Your task to perform on an android device: Search for "dell alienware" on bestbuy, select the first entry, add it to the cart, then select checkout. Image 0: 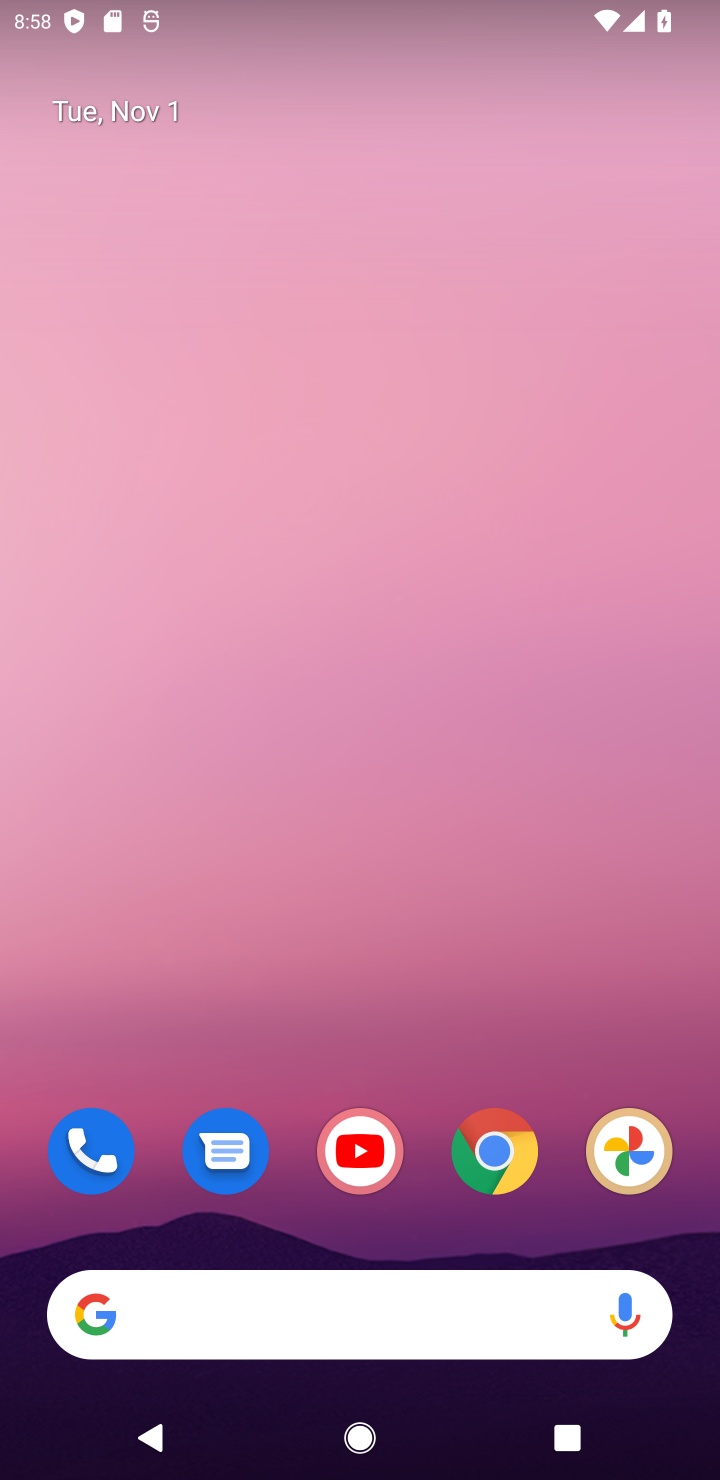
Step 0: click (490, 1137)
Your task to perform on an android device: Search for "dell alienware" on bestbuy, select the first entry, add it to the cart, then select checkout. Image 1: 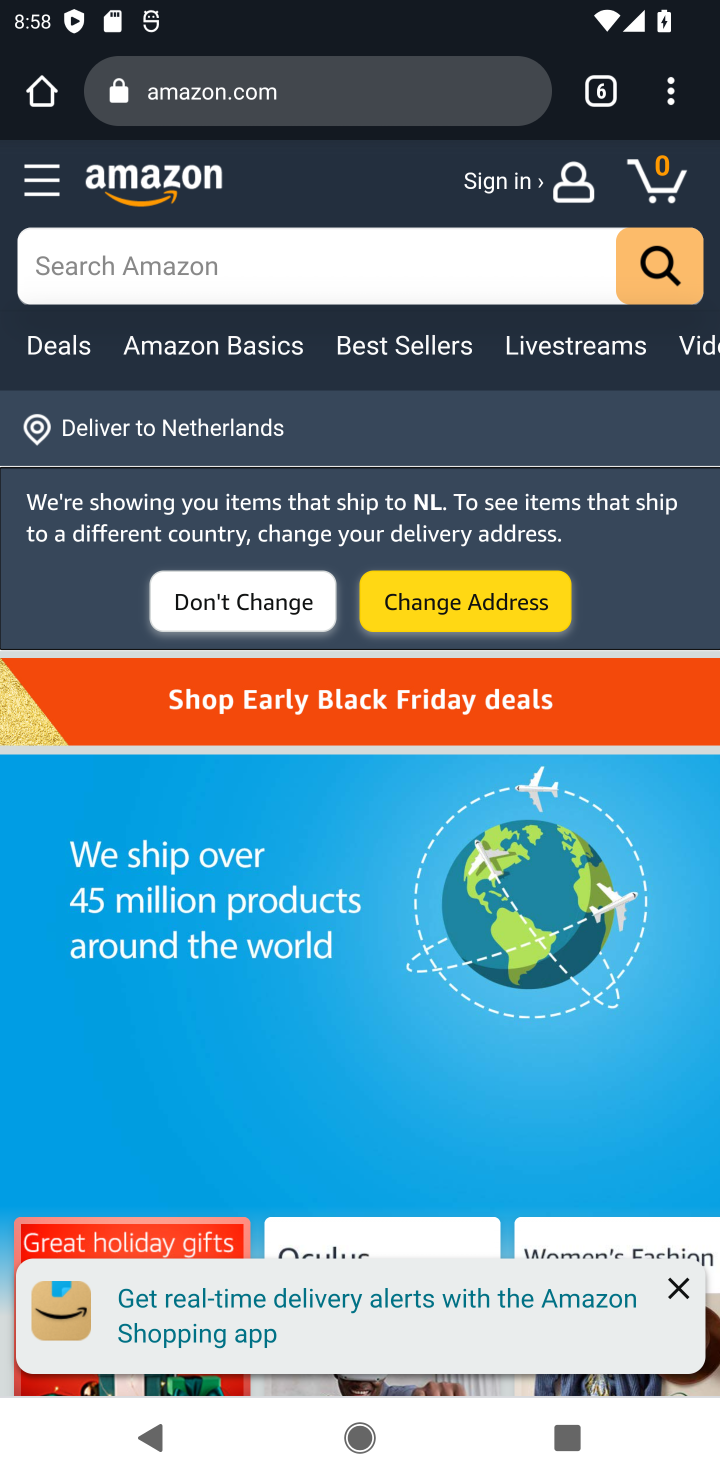
Step 1: click (594, 86)
Your task to perform on an android device: Search for "dell alienware" on bestbuy, select the first entry, add it to the cart, then select checkout. Image 2: 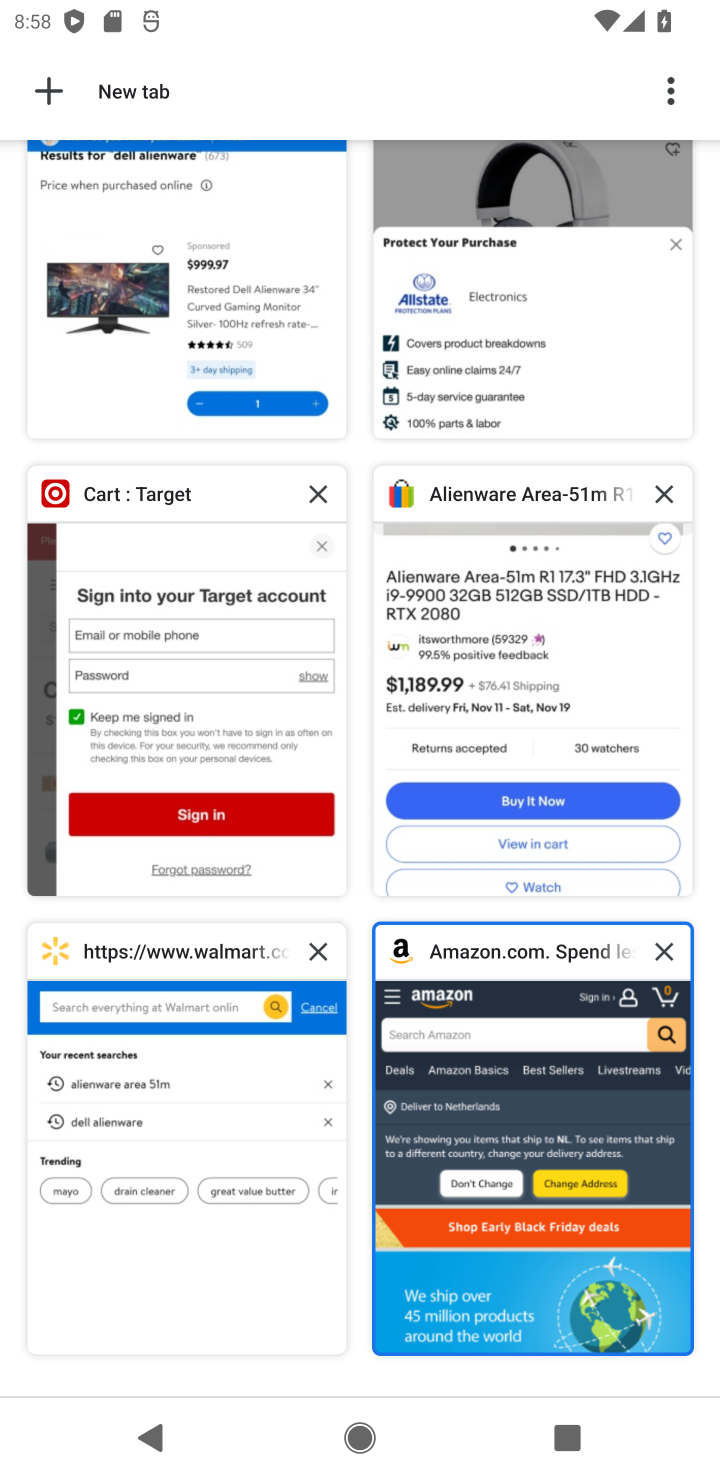
Step 2: drag from (130, 383) to (270, 935)
Your task to perform on an android device: Search for "dell alienware" on bestbuy, select the first entry, add it to the cart, then select checkout. Image 3: 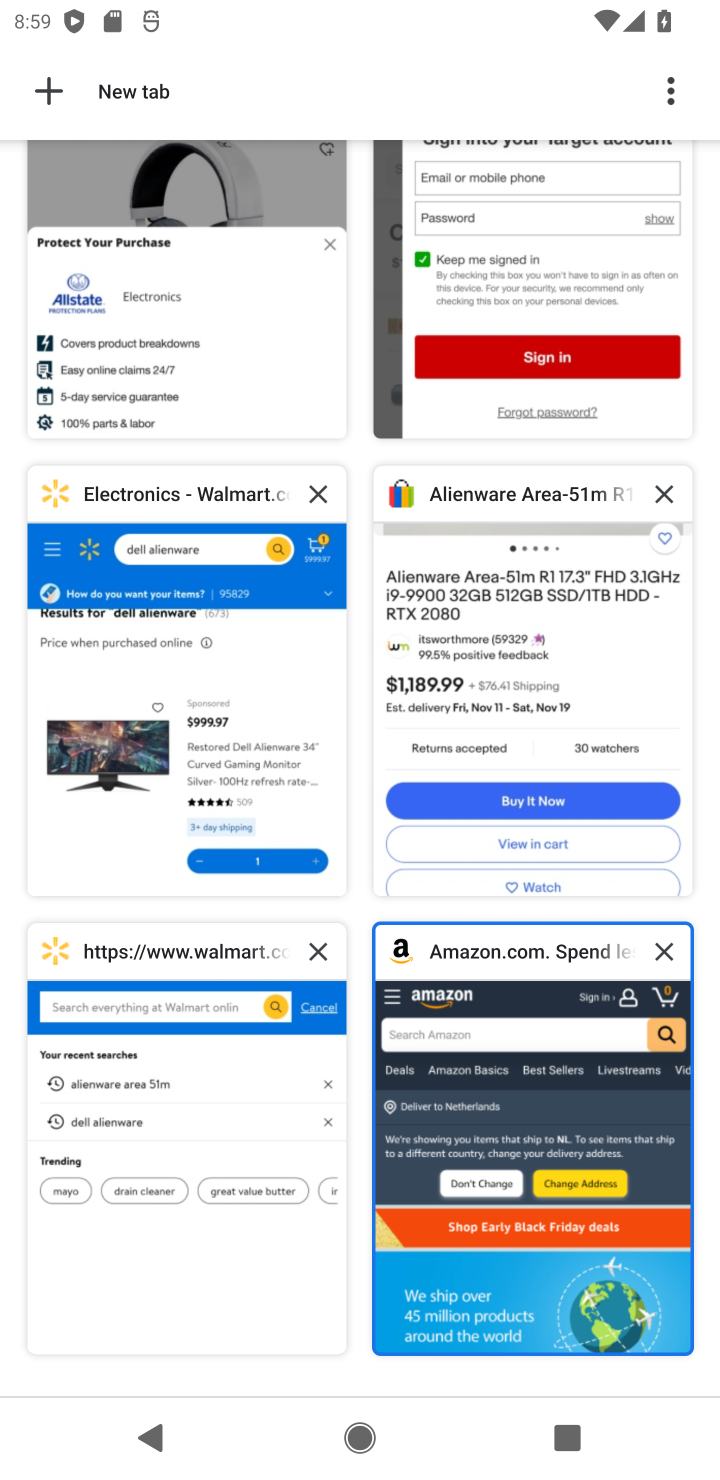
Step 3: click (322, 945)
Your task to perform on an android device: Search for "dell alienware" on bestbuy, select the first entry, add it to the cart, then select checkout. Image 4: 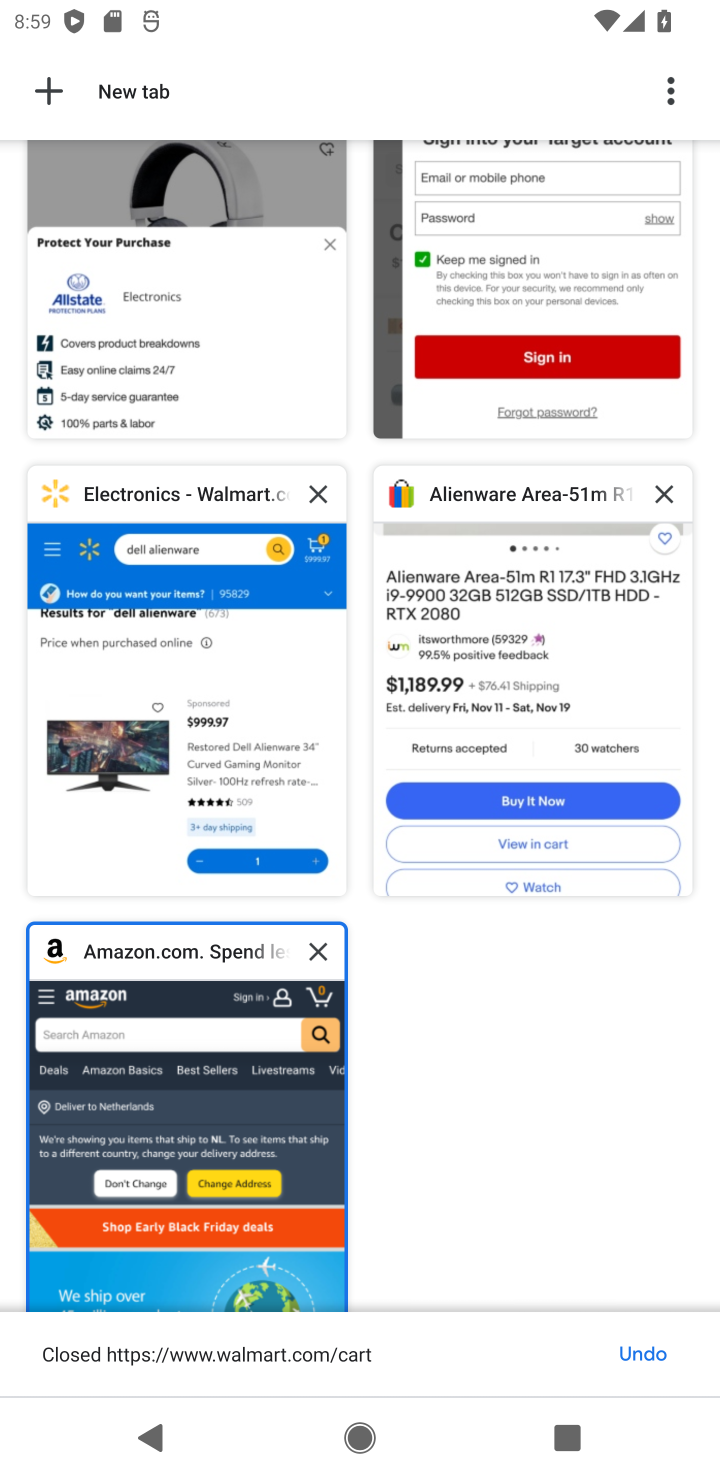
Step 4: drag from (448, 1179) to (477, 1439)
Your task to perform on an android device: Search for "dell alienware" on bestbuy, select the first entry, add it to the cart, then select checkout. Image 5: 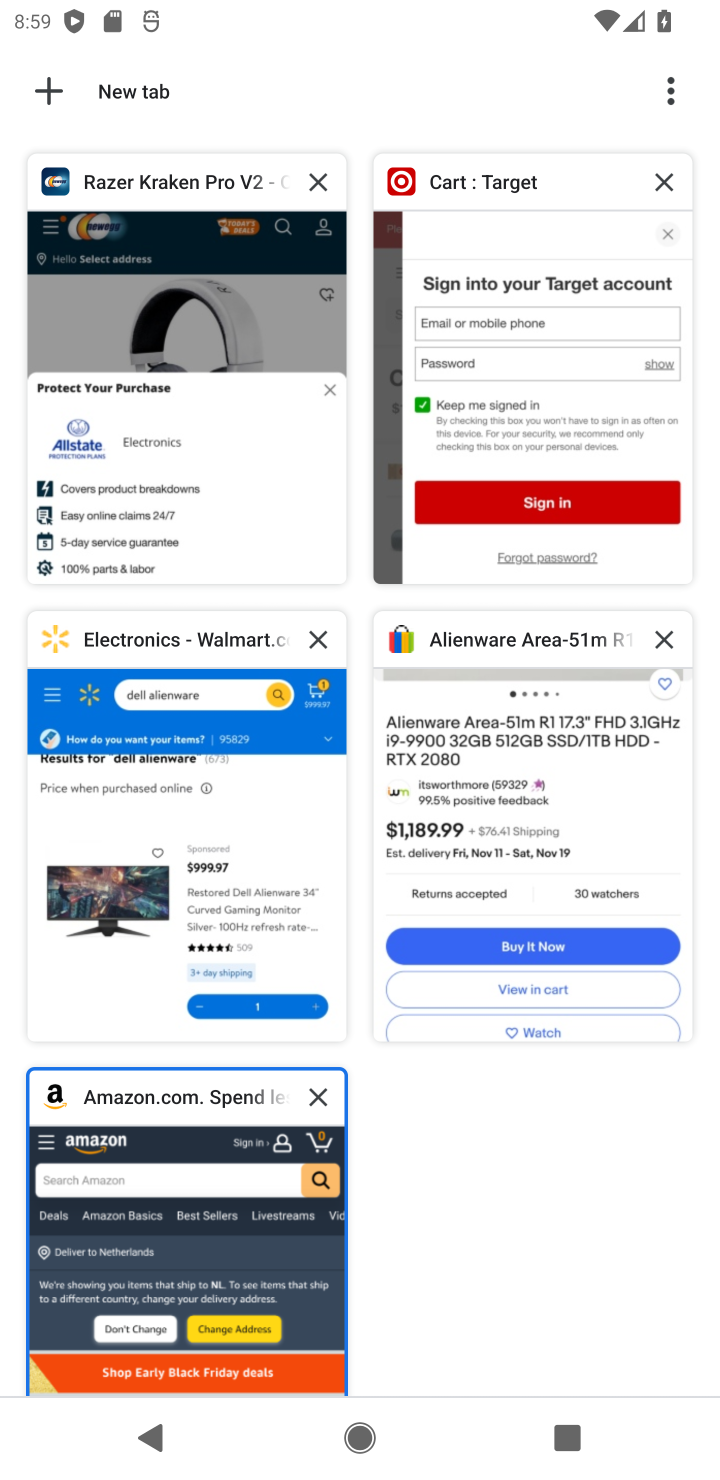
Step 5: click (46, 78)
Your task to perform on an android device: Search for "dell alienware" on bestbuy, select the first entry, add it to the cart, then select checkout. Image 6: 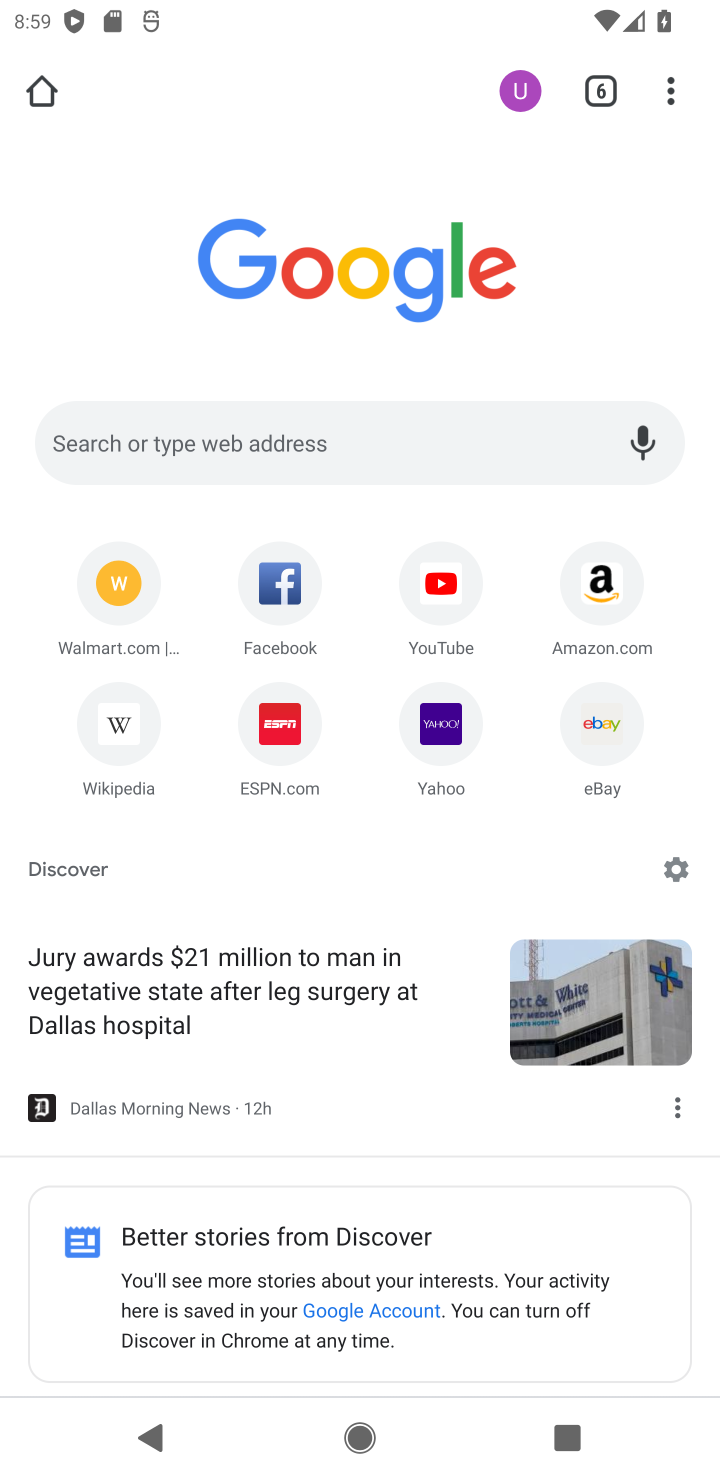
Step 6: click (296, 435)
Your task to perform on an android device: Search for "dell alienware" on bestbuy, select the first entry, add it to the cart, then select checkout. Image 7: 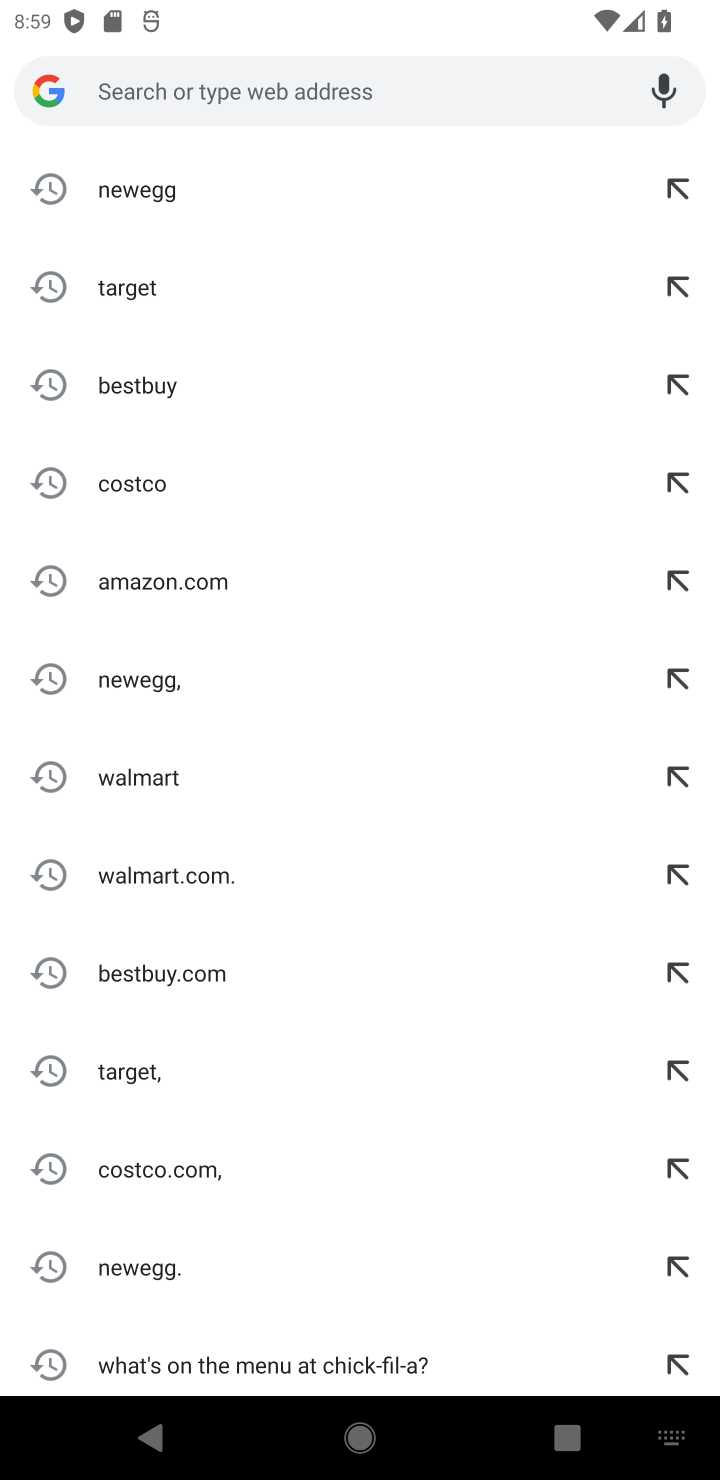
Step 7: type "bestbuy"
Your task to perform on an android device: Search for "dell alienware" on bestbuy, select the first entry, add it to the cart, then select checkout. Image 8: 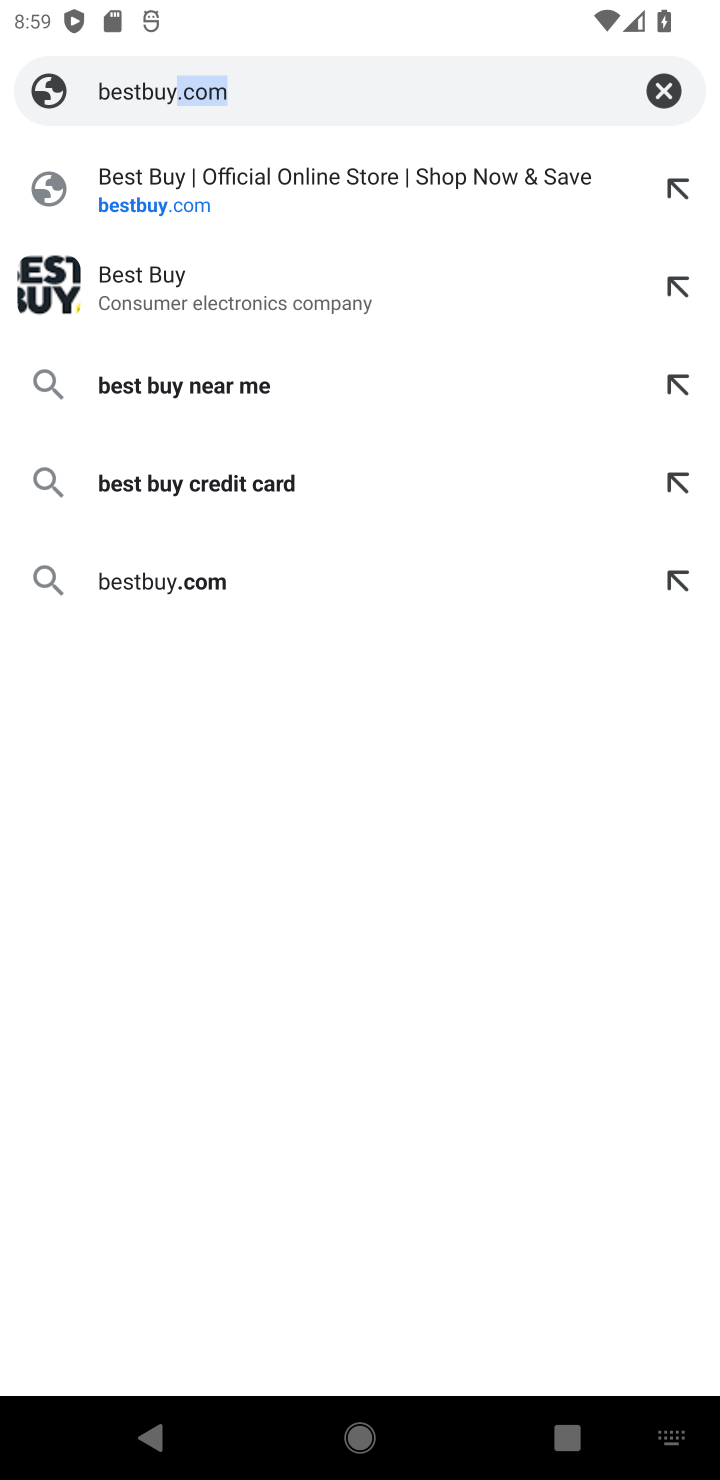
Step 8: click (154, 192)
Your task to perform on an android device: Search for "dell alienware" on bestbuy, select the first entry, add it to the cart, then select checkout. Image 9: 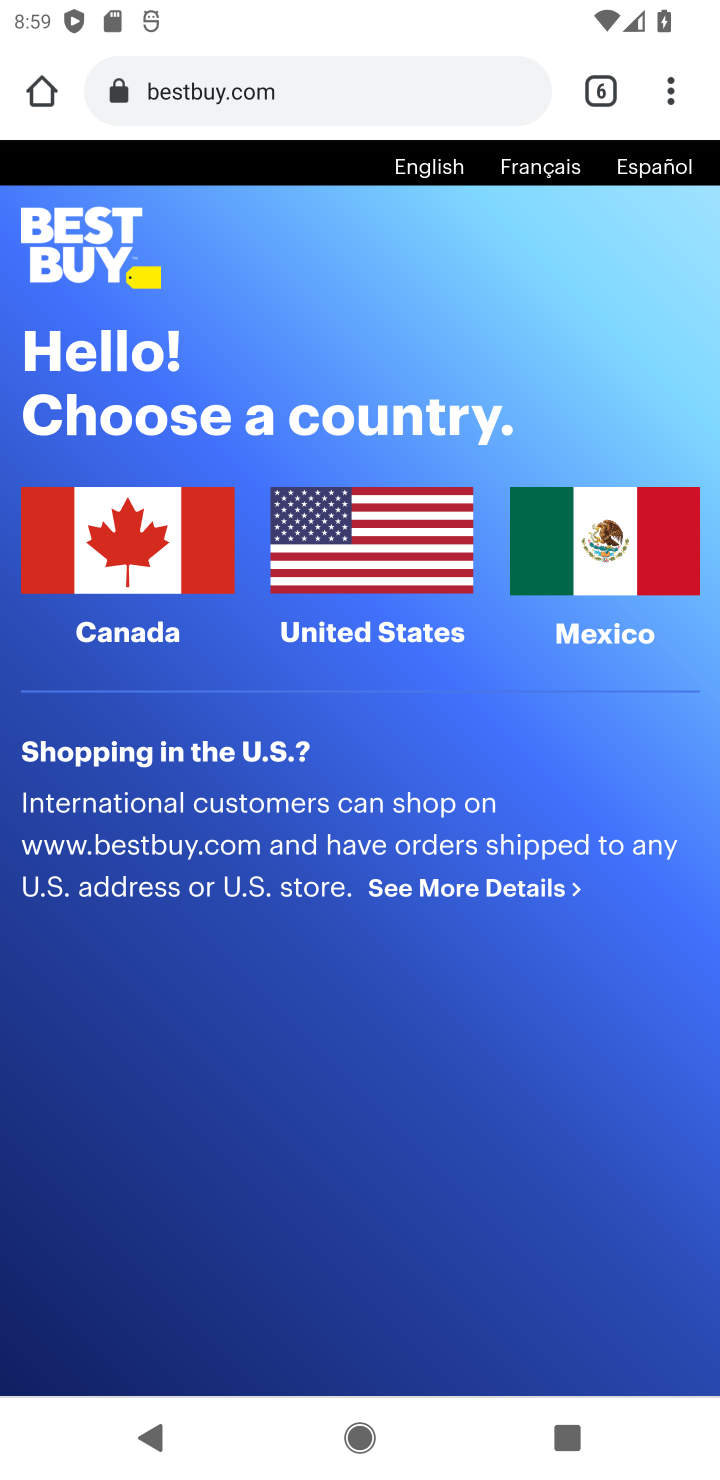
Step 9: click (349, 562)
Your task to perform on an android device: Search for "dell alienware" on bestbuy, select the first entry, add it to the cart, then select checkout. Image 10: 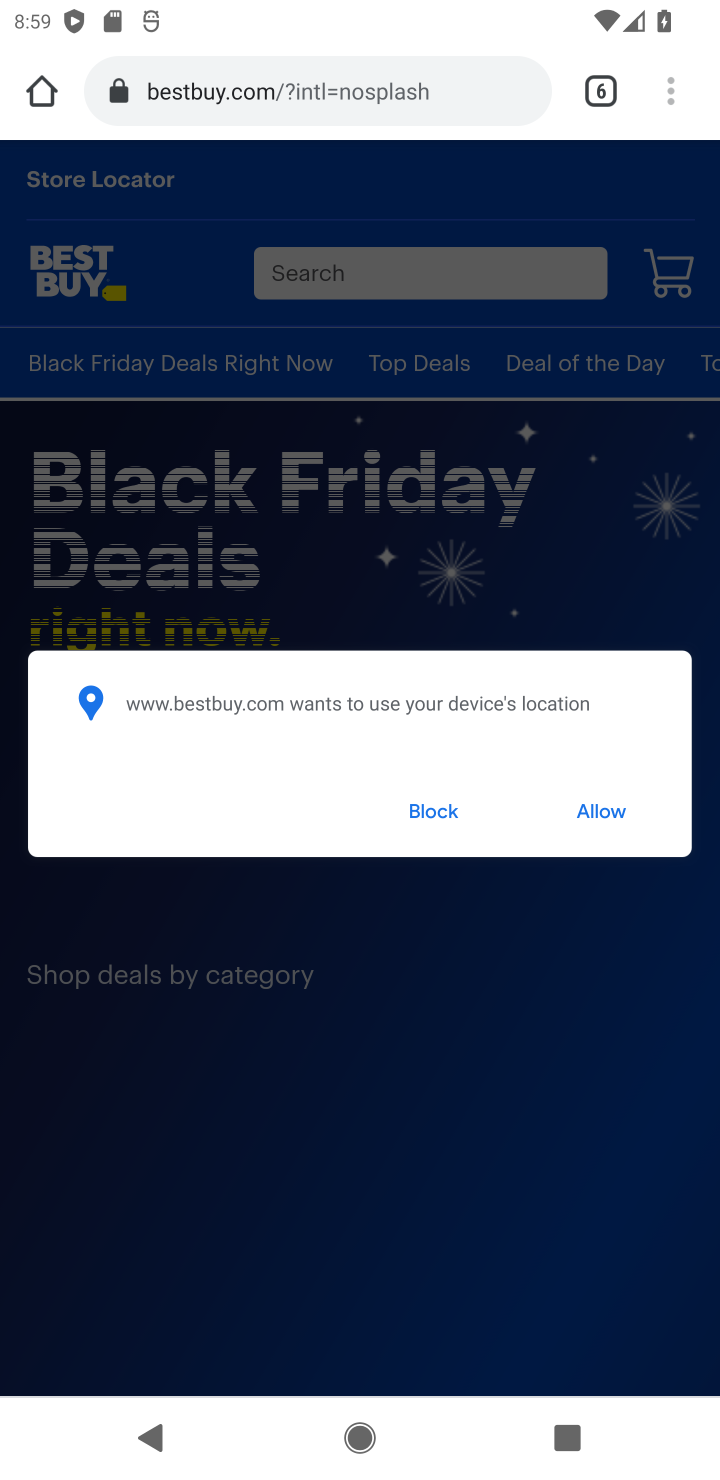
Step 10: click (437, 806)
Your task to perform on an android device: Search for "dell alienware" on bestbuy, select the first entry, add it to the cart, then select checkout. Image 11: 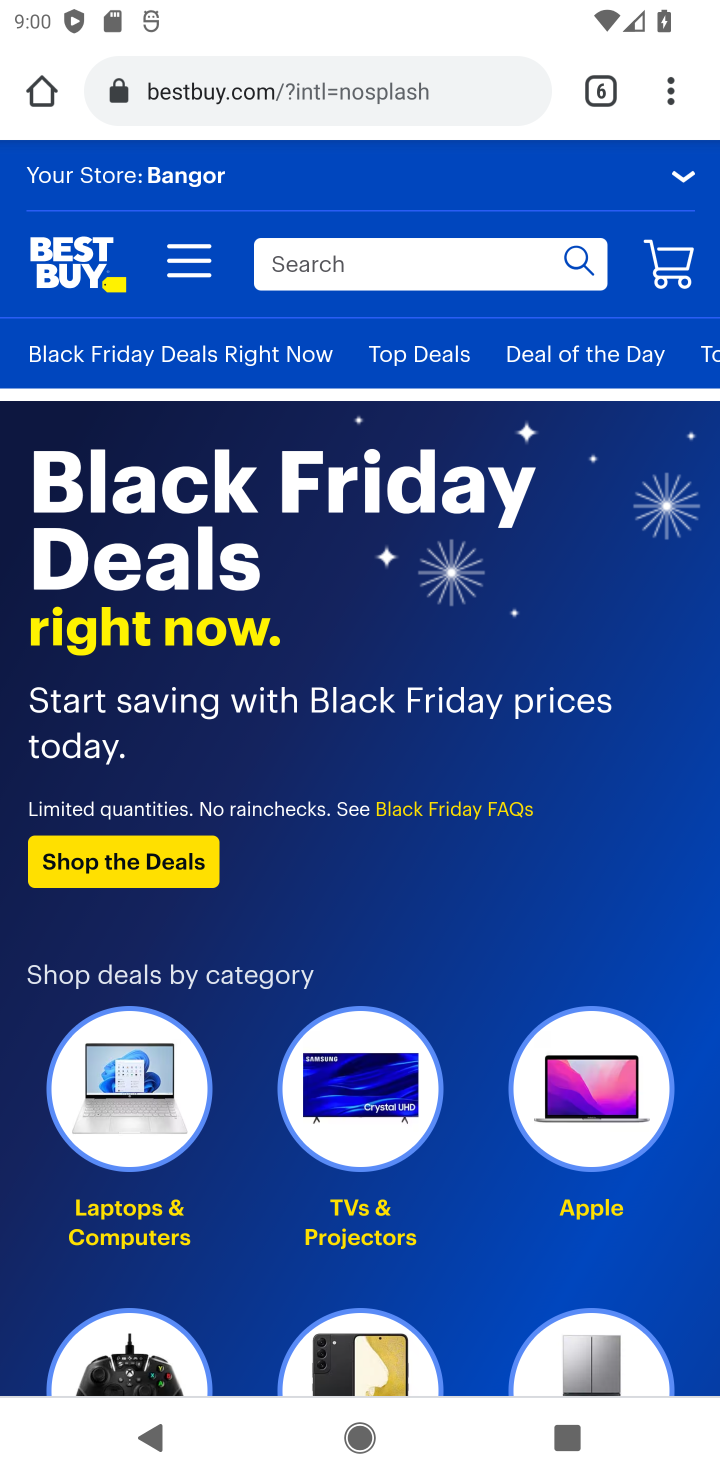
Step 11: click (429, 261)
Your task to perform on an android device: Search for "dell alienware" on bestbuy, select the first entry, add it to the cart, then select checkout. Image 12: 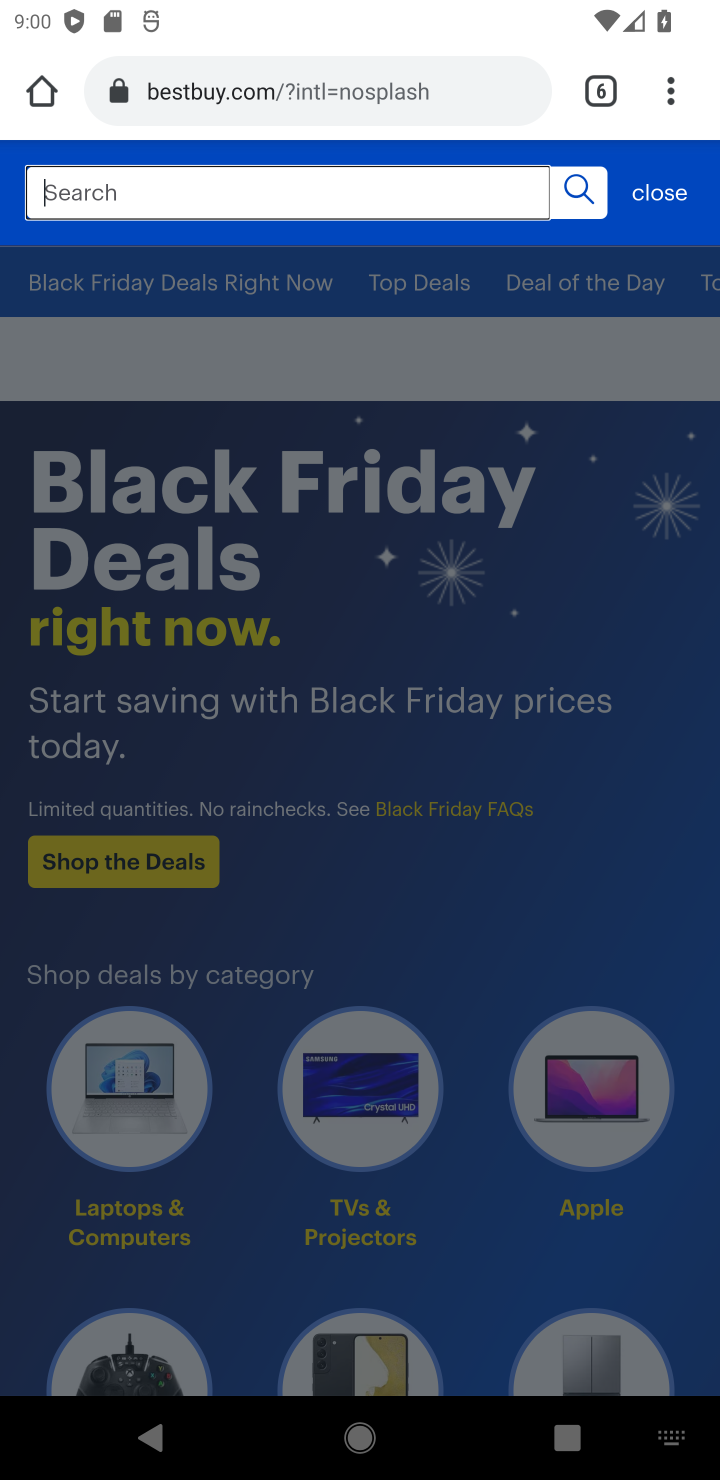
Step 12: type "dell alienware"
Your task to perform on an android device: Search for "dell alienware" on bestbuy, select the first entry, add it to the cart, then select checkout. Image 13: 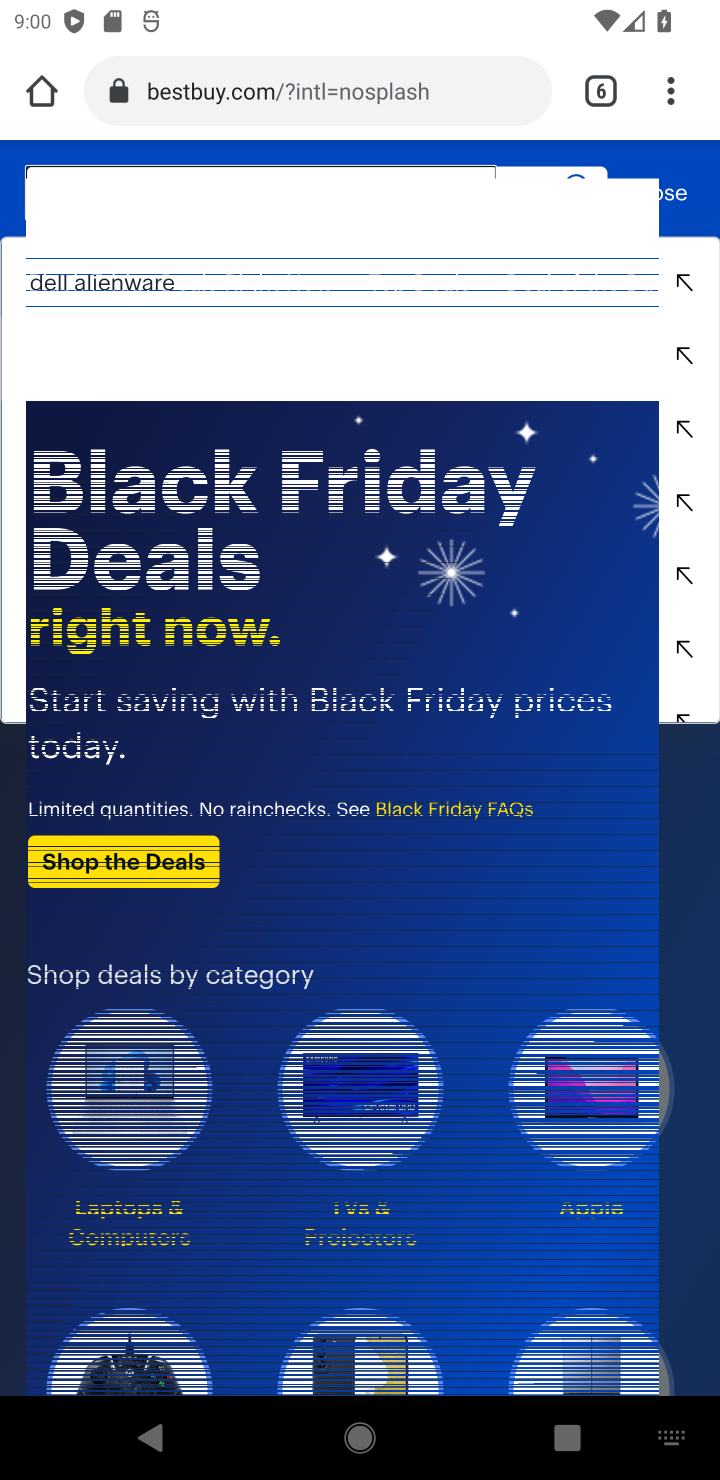
Step 13: click (141, 277)
Your task to perform on an android device: Search for "dell alienware" on bestbuy, select the first entry, add it to the cart, then select checkout. Image 14: 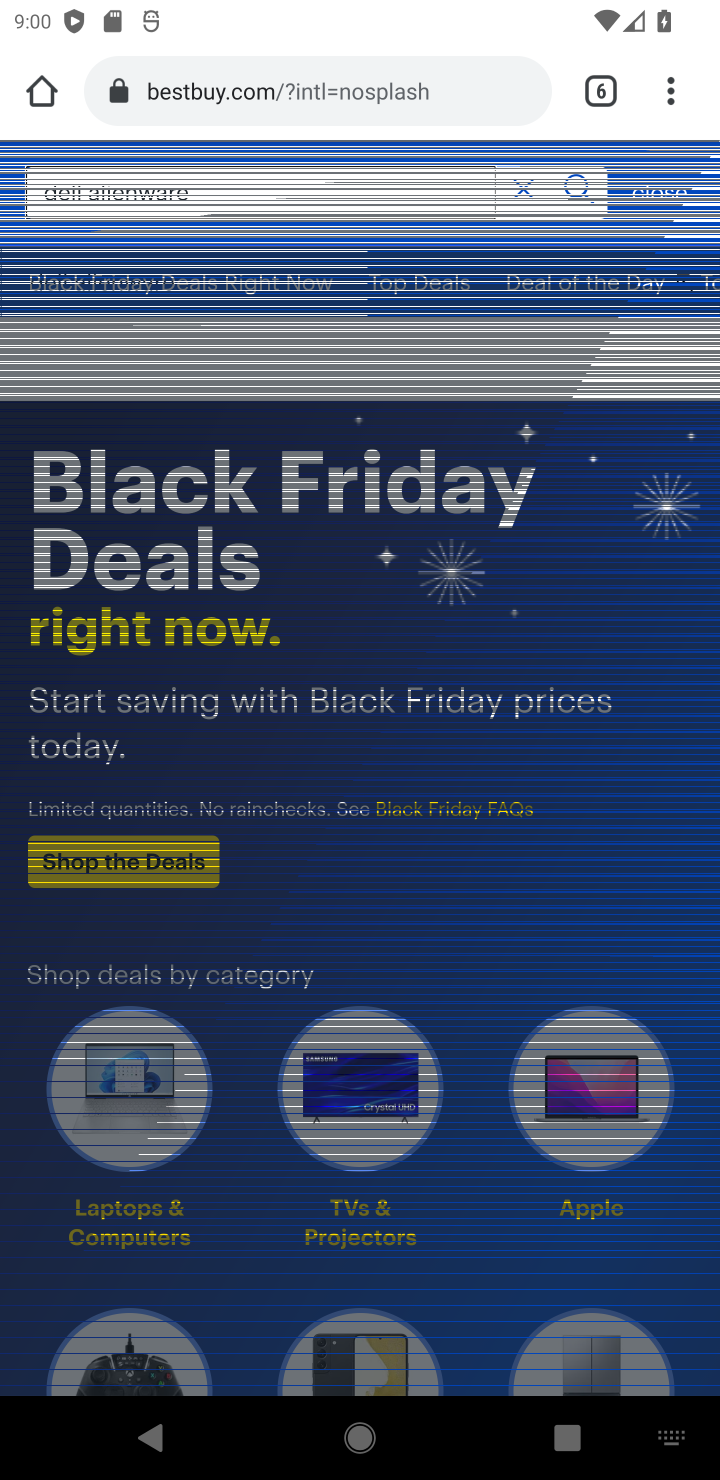
Step 14: click (141, 277)
Your task to perform on an android device: Search for "dell alienware" on bestbuy, select the first entry, add it to the cart, then select checkout. Image 15: 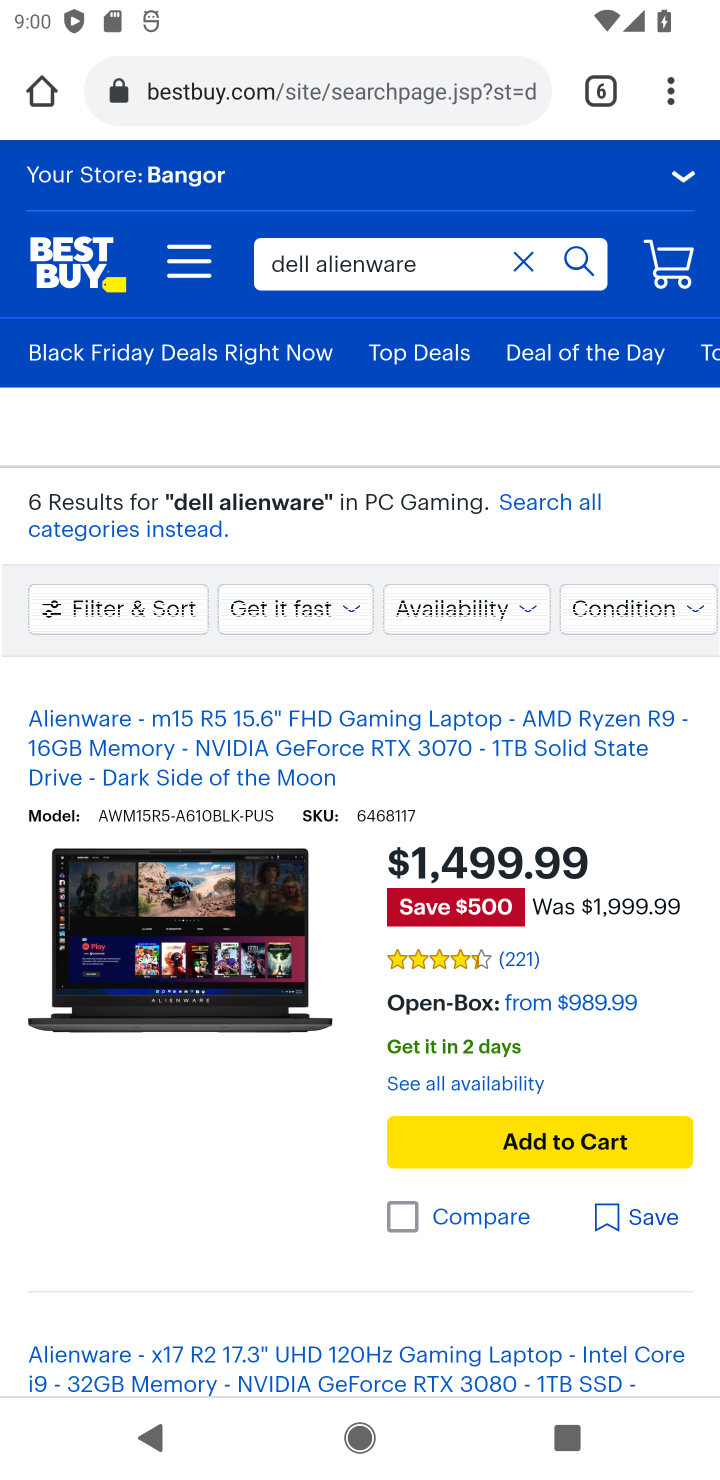
Step 15: click (530, 1008)
Your task to perform on an android device: Search for "dell alienware" on bestbuy, select the first entry, add it to the cart, then select checkout. Image 16: 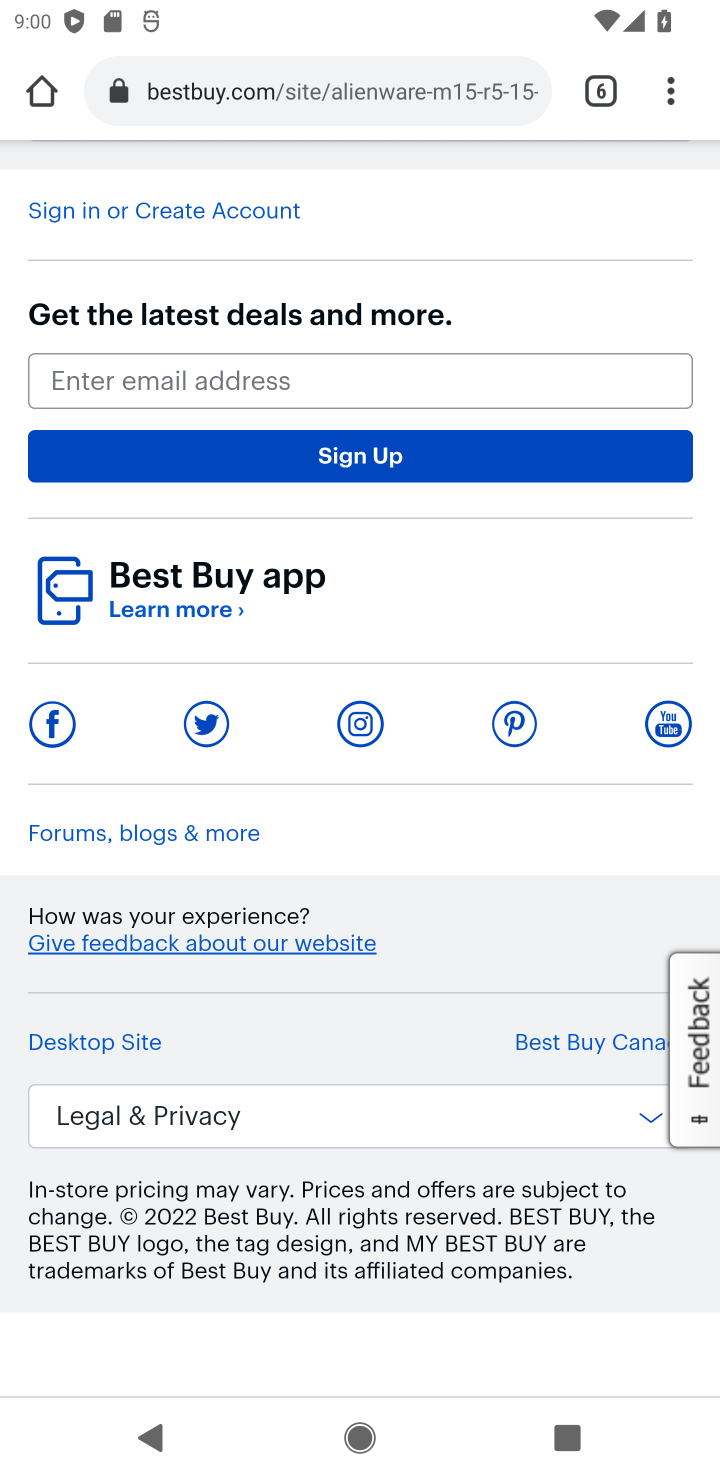
Step 16: drag from (585, 228) to (420, 1209)
Your task to perform on an android device: Search for "dell alienware" on bestbuy, select the first entry, add it to the cart, then select checkout. Image 17: 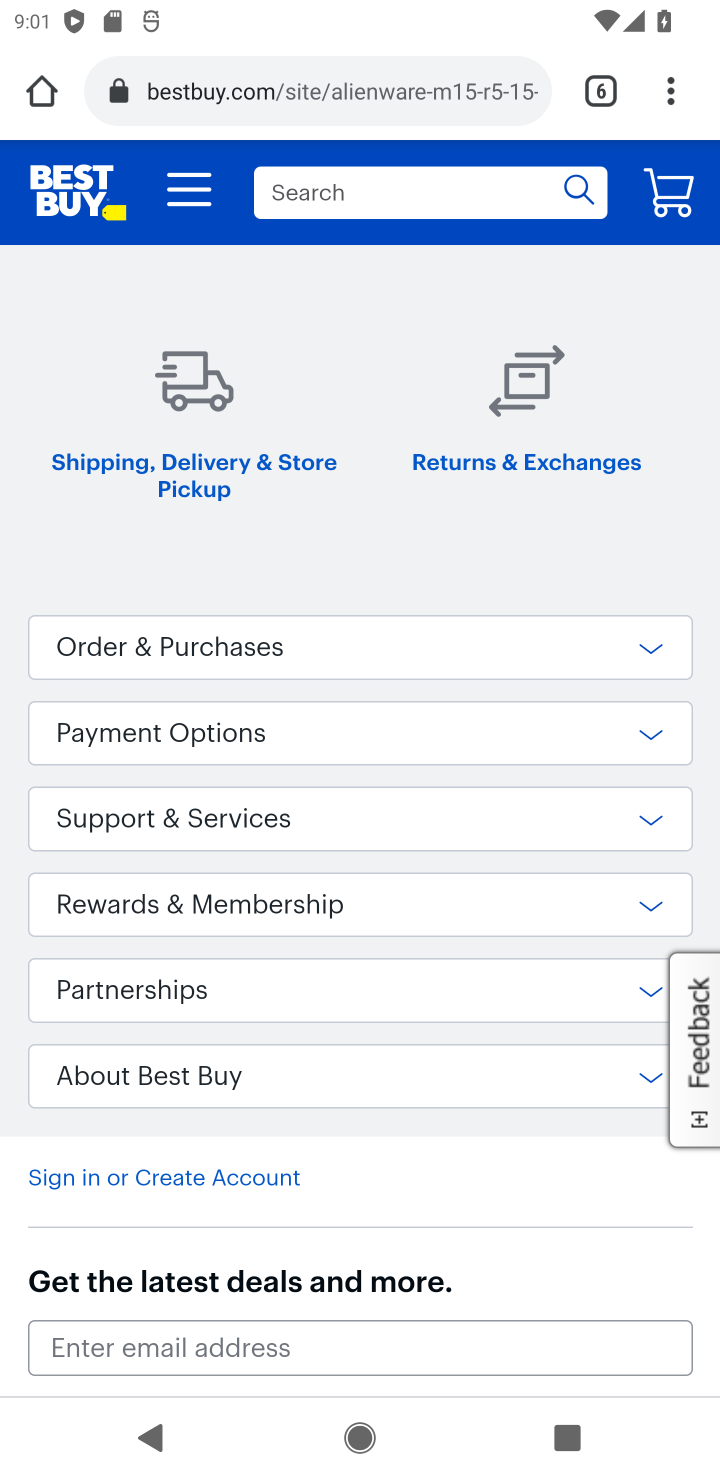
Step 17: drag from (345, 516) to (194, 1385)
Your task to perform on an android device: Search for "dell alienware" on bestbuy, select the first entry, add it to the cart, then select checkout. Image 18: 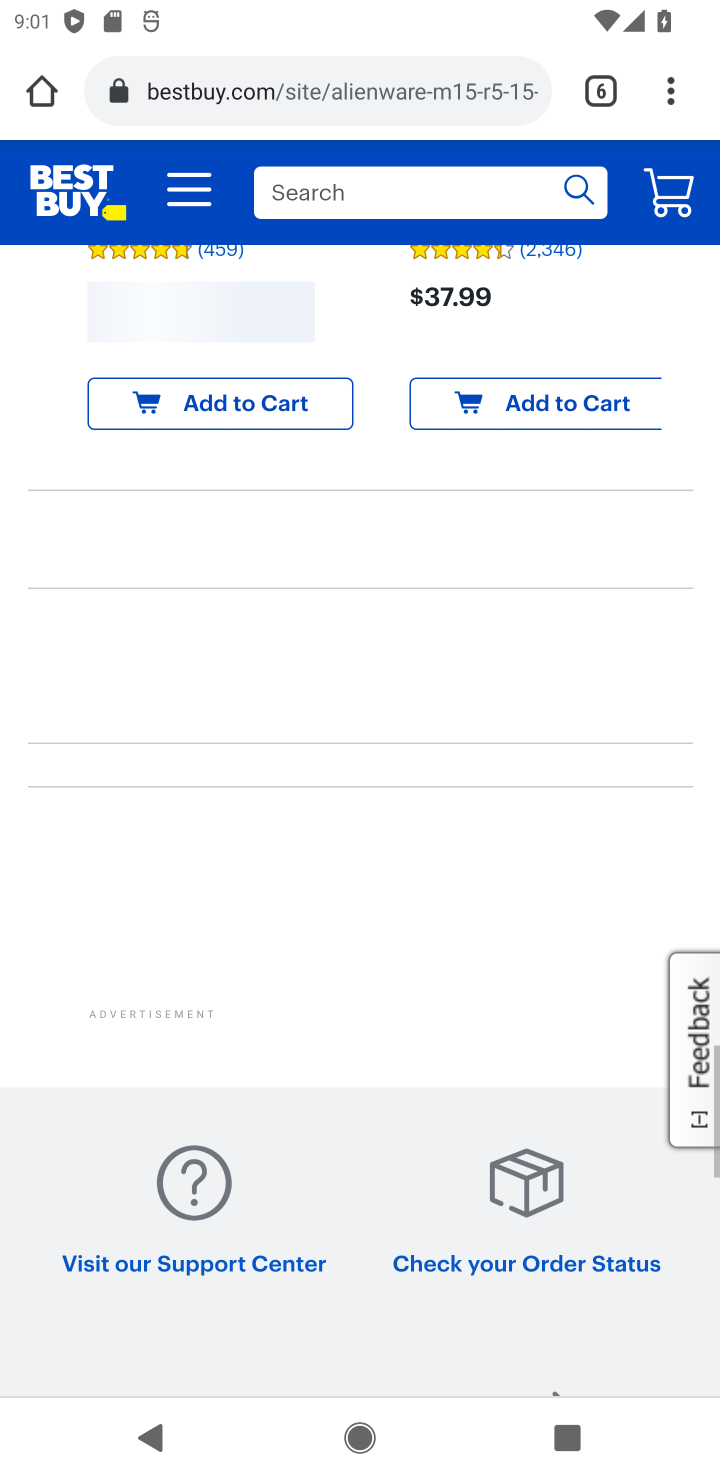
Step 18: drag from (389, 570) to (129, 1375)
Your task to perform on an android device: Search for "dell alienware" on bestbuy, select the first entry, add it to the cart, then select checkout. Image 19: 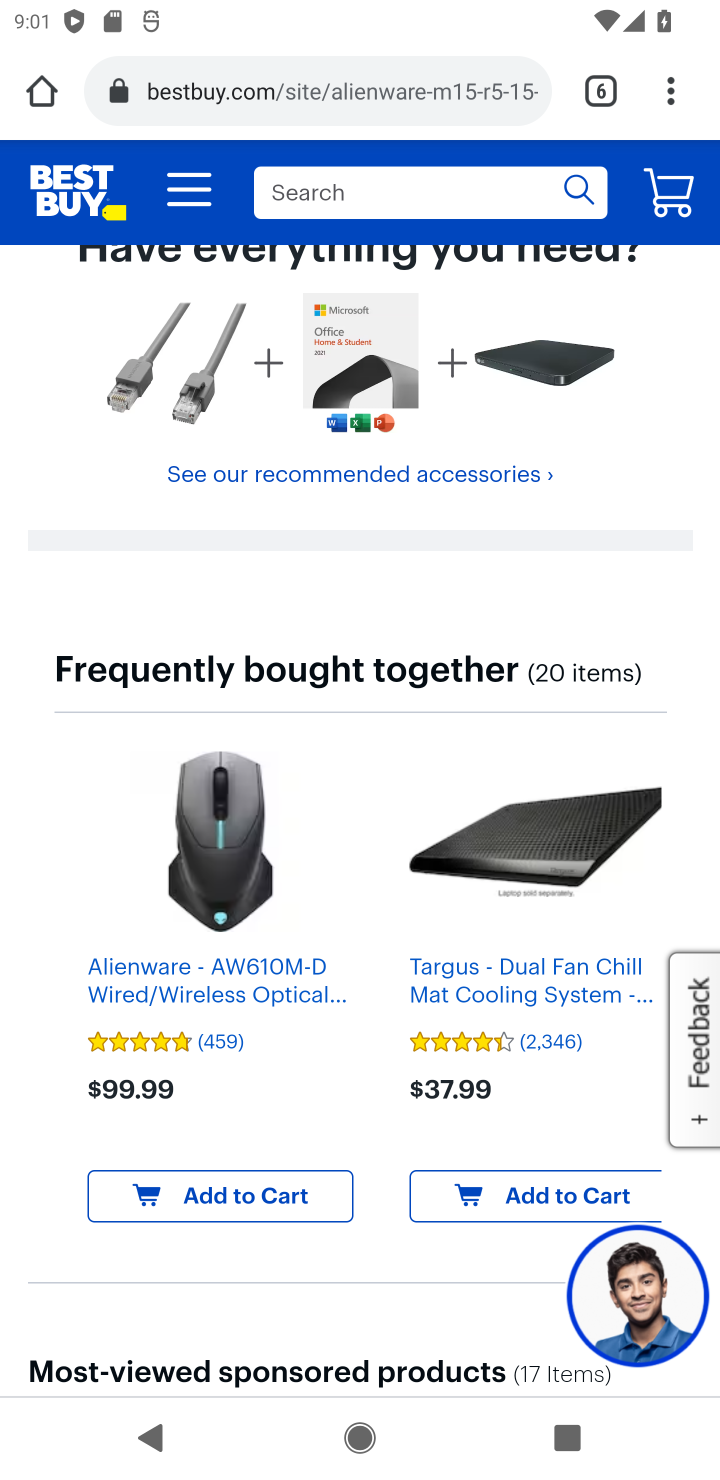
Step 19: drag from (472, 513) to (188, 1463)
Your task to perform on an android device: Search for "dell alienware" on bestbuy, select the first entry, add it to the cart, then select checkout. Image 20: 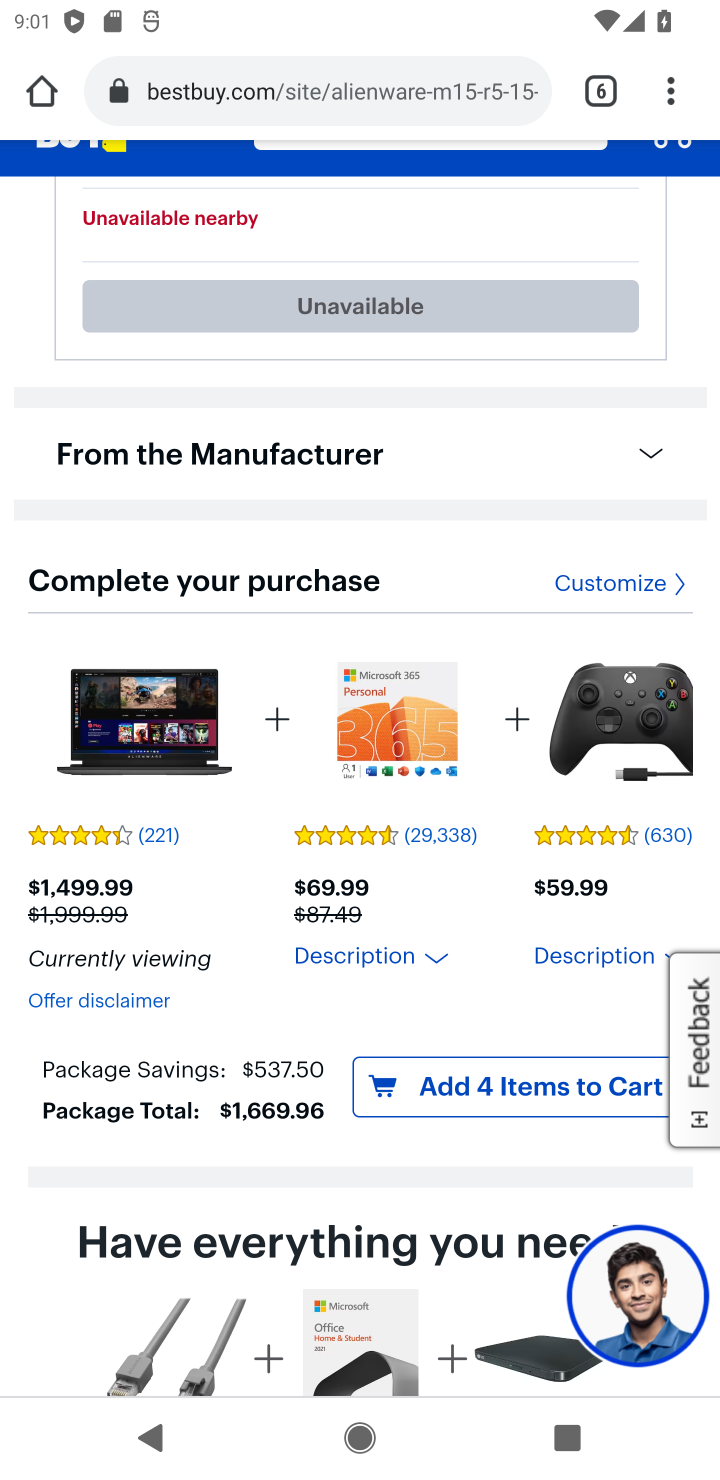
Step 20: drag from (467, 336) to (378, 1107)
Your task to perform on an android device: Search for "dell alienware" on bestbuy, select the first entry, add it to the cart, then select checkout. Image 21: 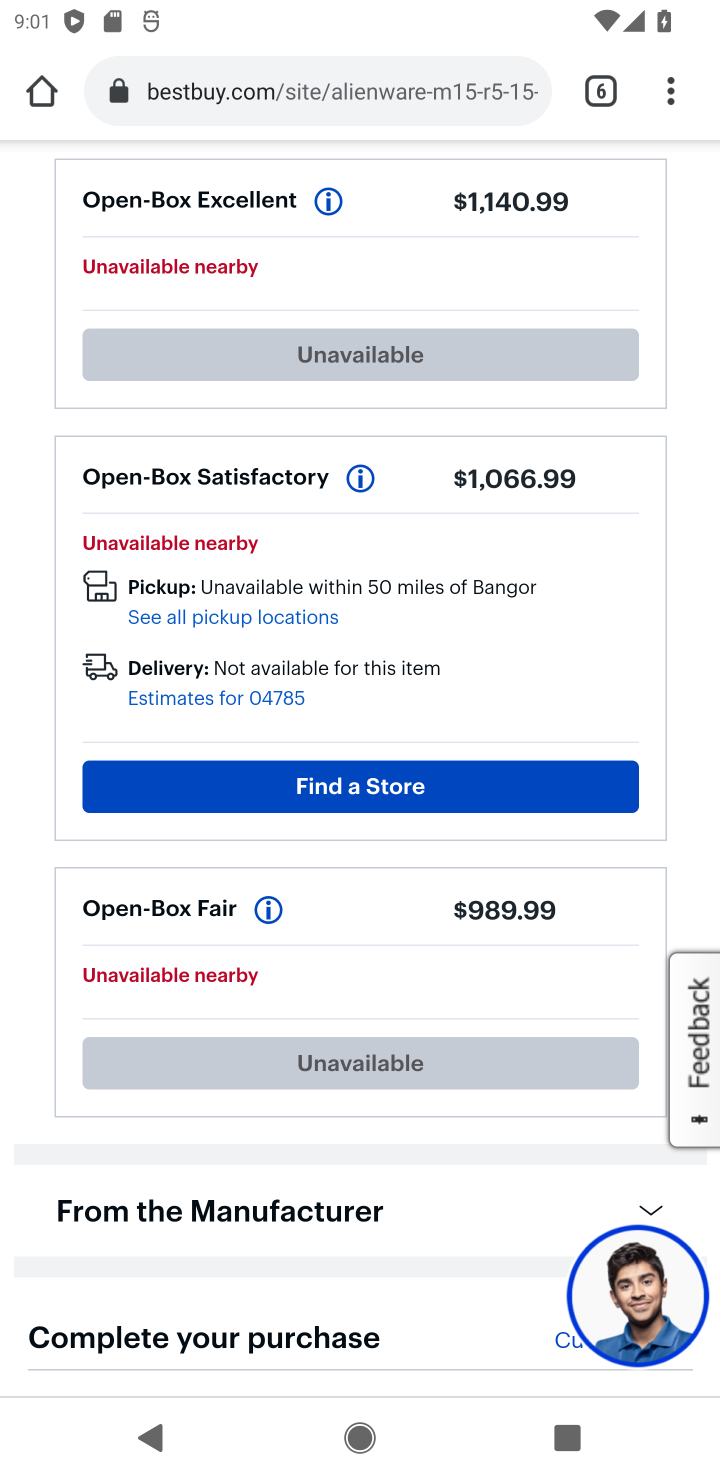
Step 21: drag from (453, 563) to (199, 1478)
Your task to perform on an android device: Search for "dell alienware" on bestbuy, select the first entry, add it to the cart, then select checkout. Image 22: 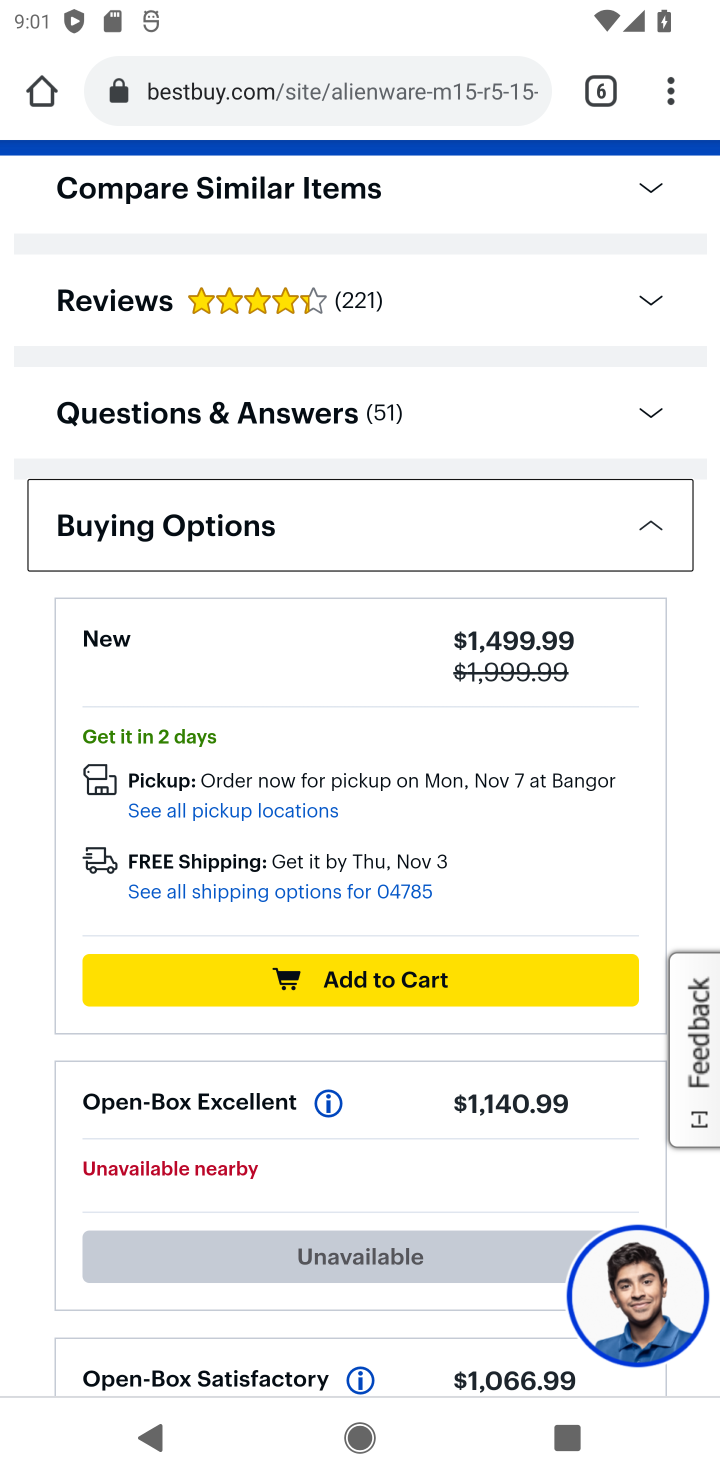
Step 22: click (386, 974)
Your task to perform on an android device: Search for "dell alienware" on bestbuy, select the first entry, add it to the cart, then select checkout. Image 23: 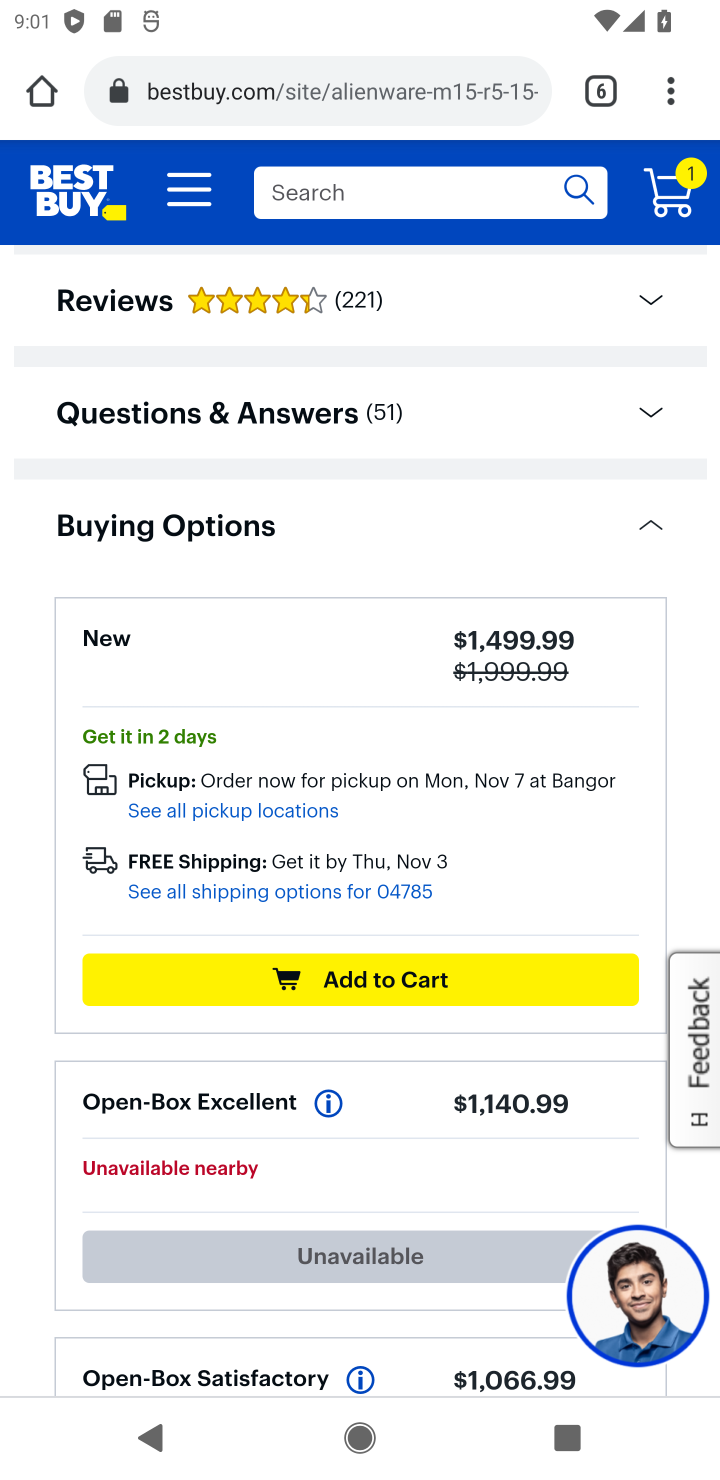
Step 23: click (676, 167)
Your task to perform on an android device: Search for "dell alienware" on bestbuy, select the first entry, add it to the cart, then select checkout. Image 24: 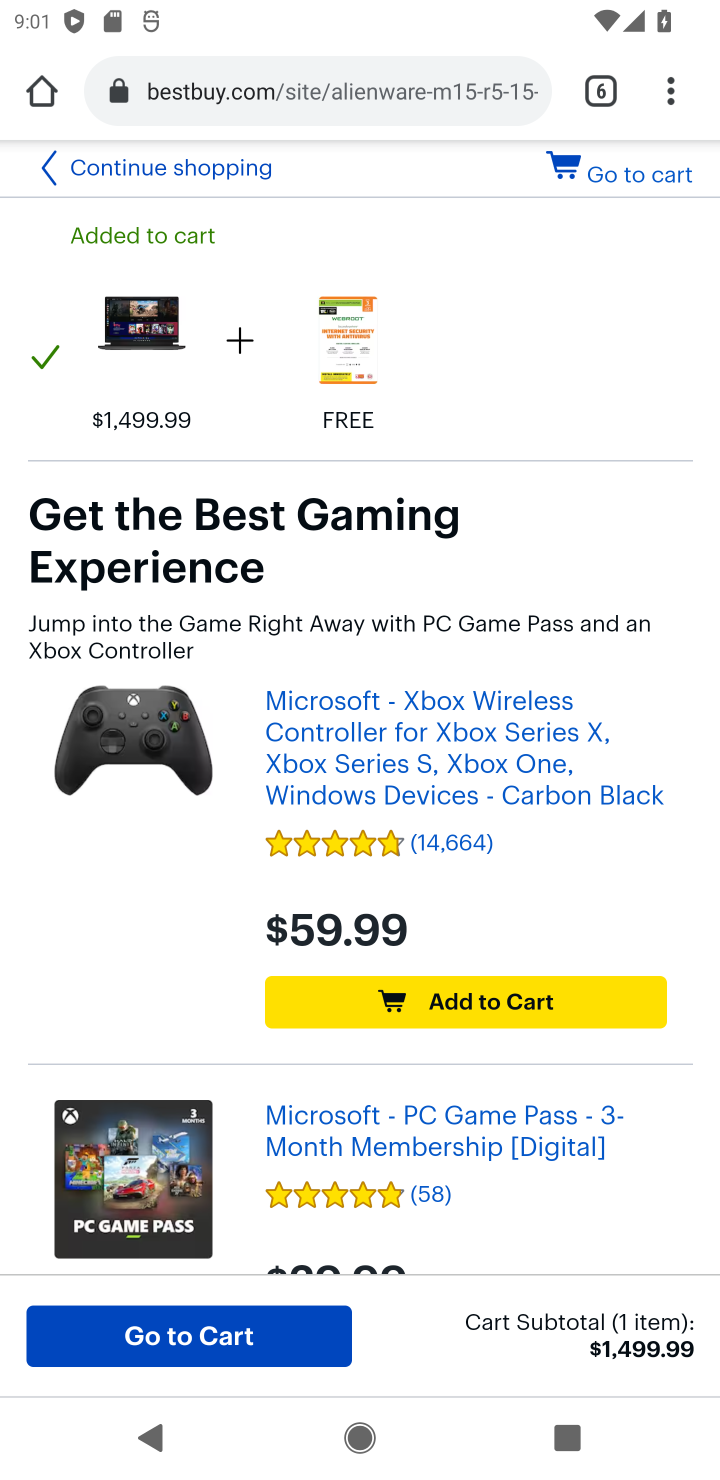
Step 24: click (186, 1325)
Your task to perform on an android device: Search for "dell alienware" on bestbuy, select the first entry, add it to the cart, then select checkout. Image 25: 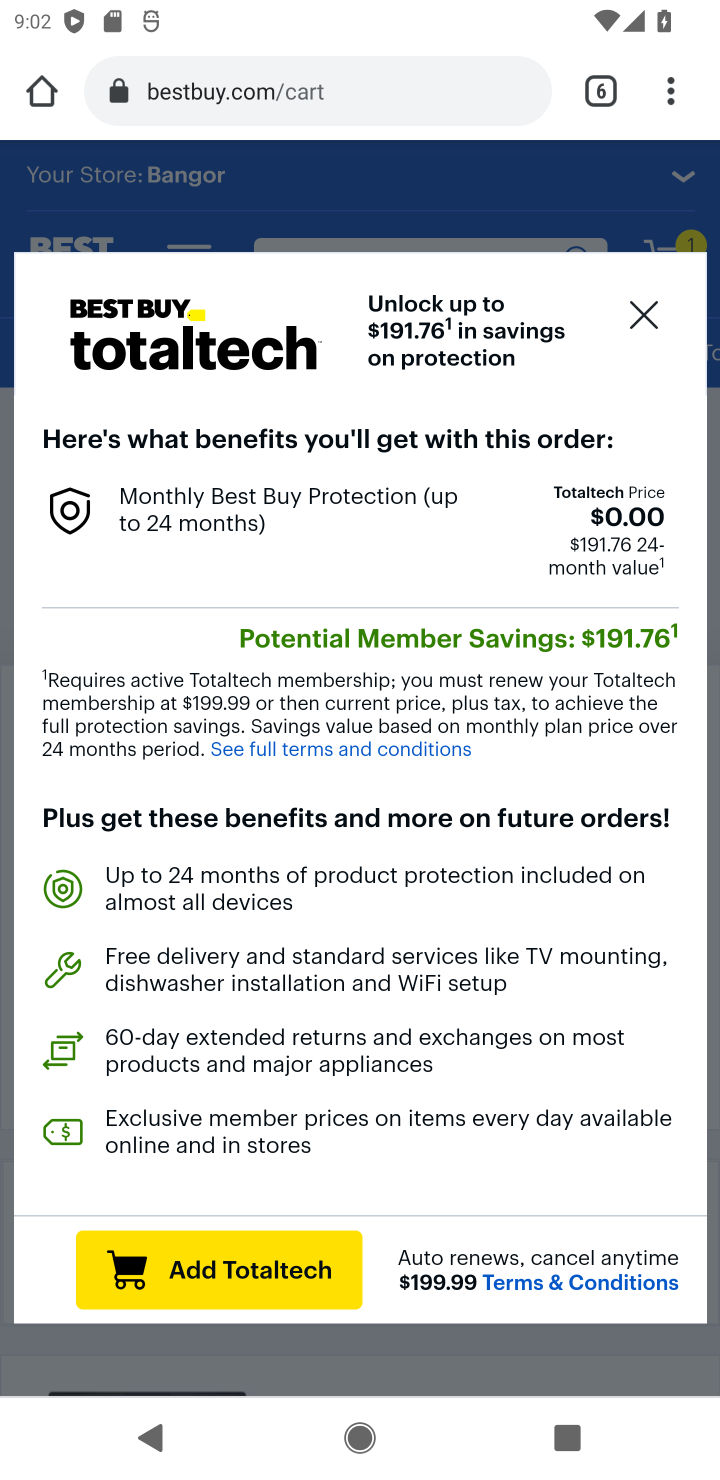
Step 25: click (649, 311)
Your task to perform on an android device: Search for "dell alienware" on bestbuy, select the first entry, add it to the cart, then select checkout. Image 26: 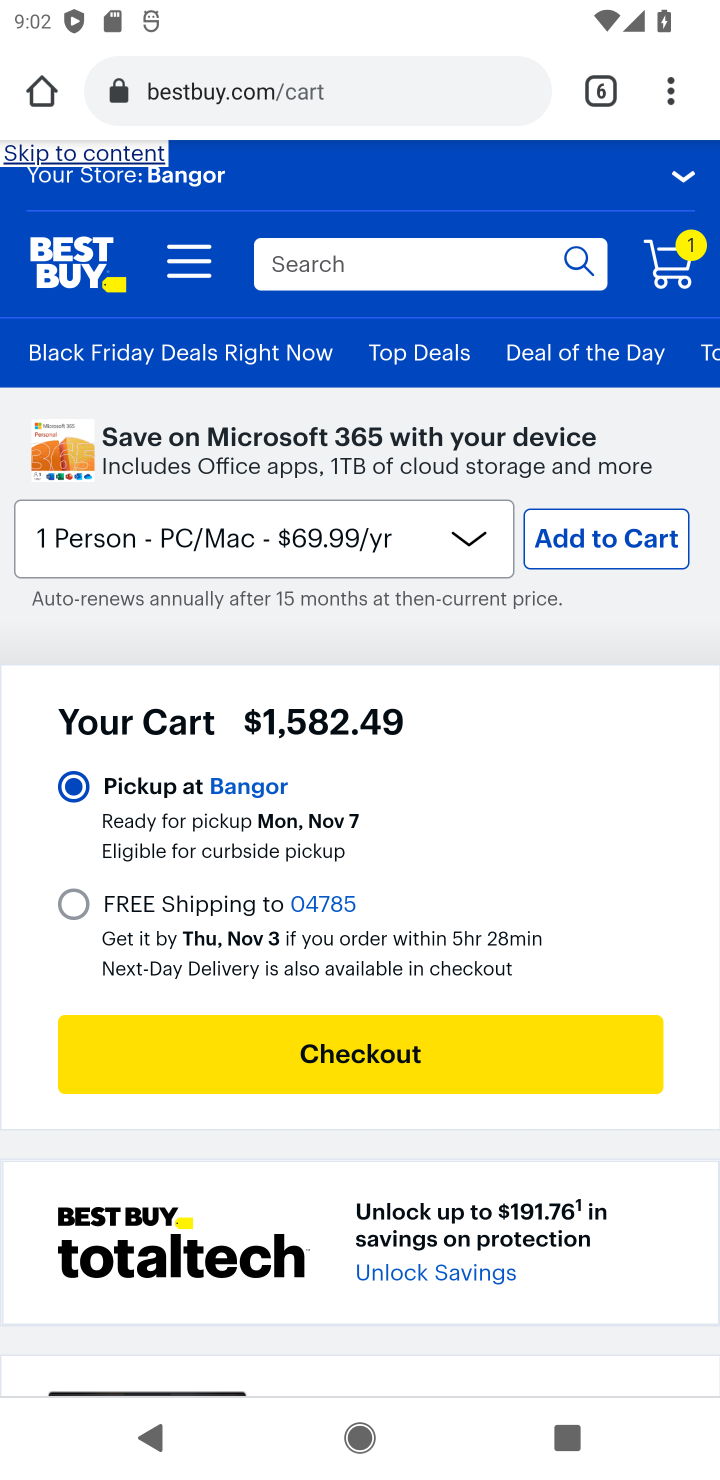
Step 26: click (310, 1053)
Your task to perform on an android device: Search for "dell alienware" on bestbuy, select the first entry, add it to the cart, then select checkout. Image 27: 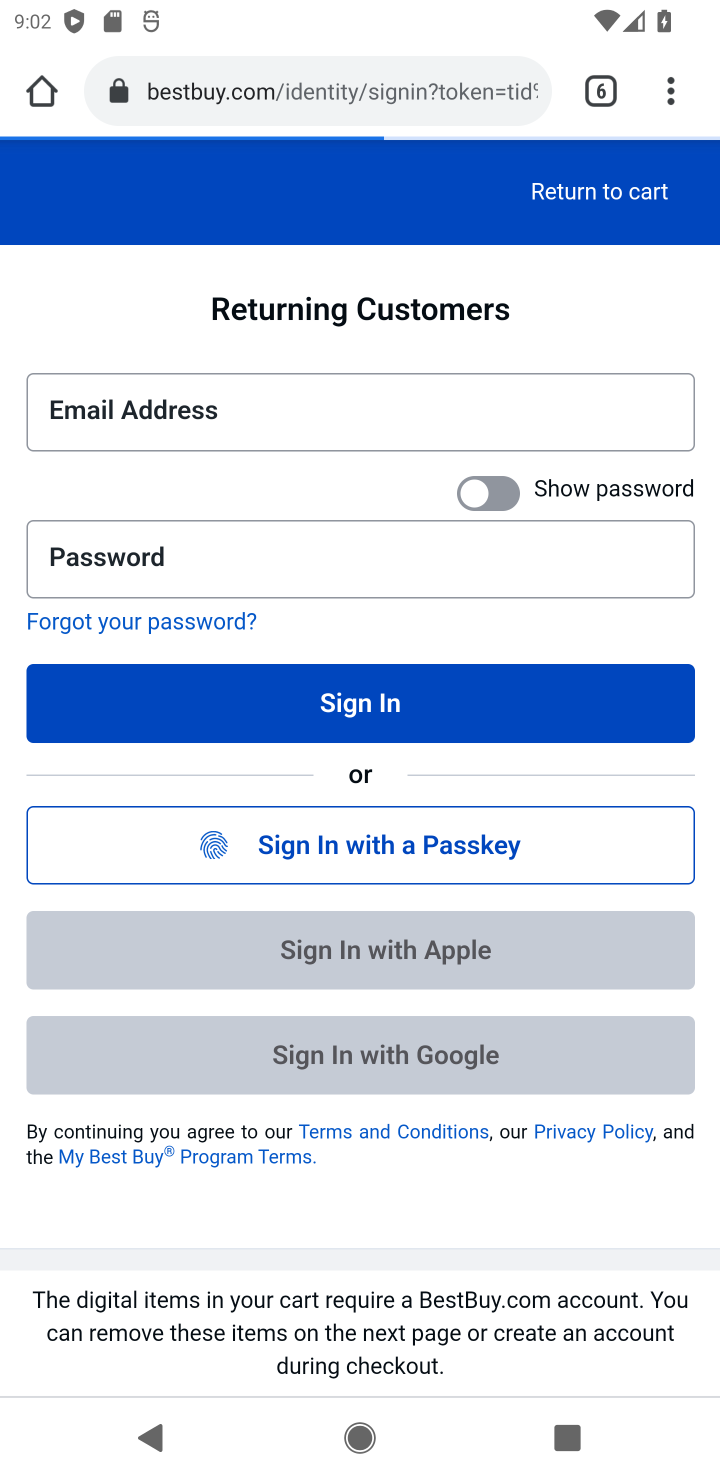
Step 27: task complete